Your task to perform on an android device: Open Android settings Image 0: 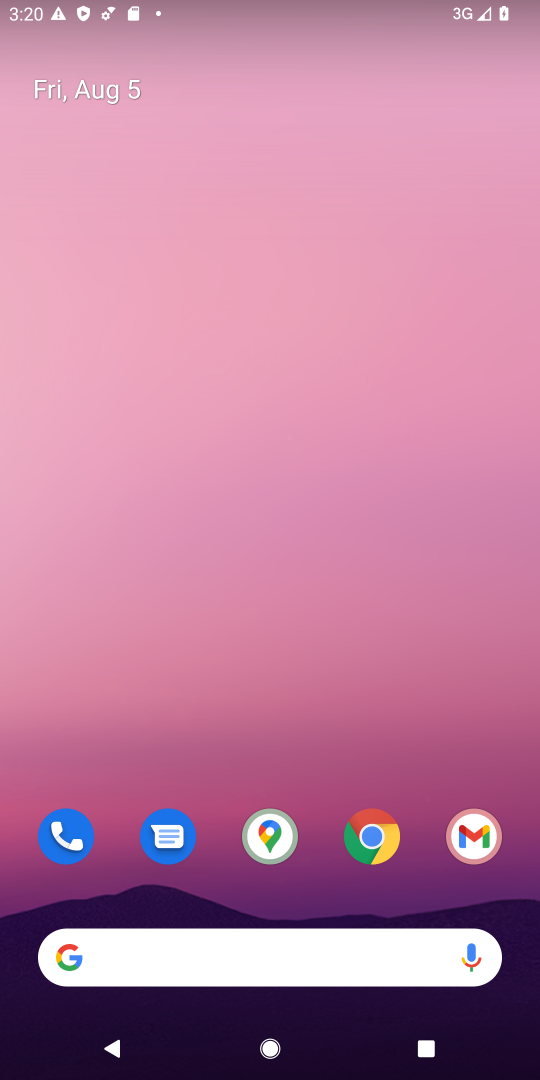
Step 0: drag from (308, 862) to (313, 240)
Your task to perform on an android device: Open Android settings Image 1: 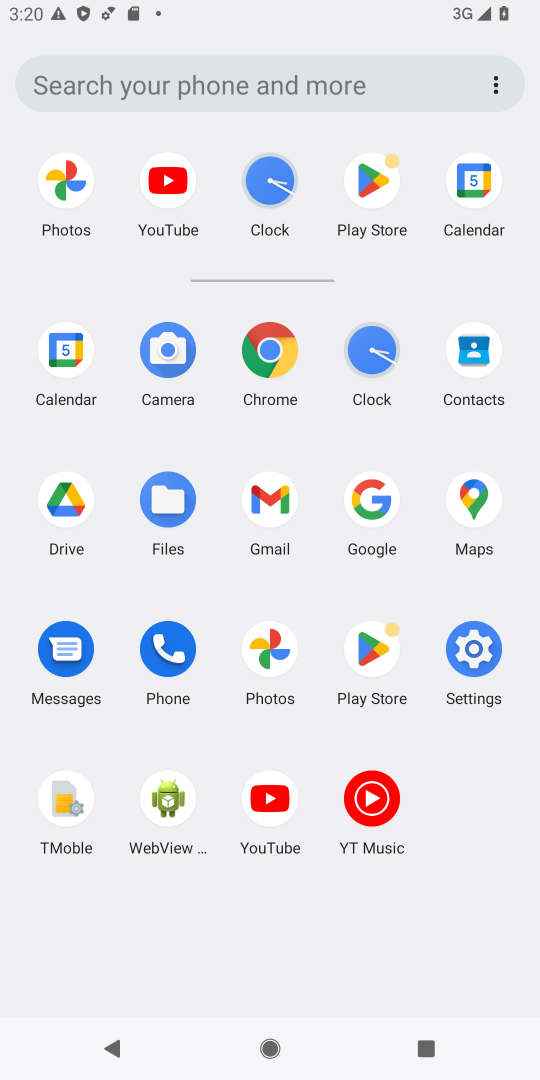
Step 1: click (472, 657)
Your task to perform on an android device: Open Android settings Image 2: 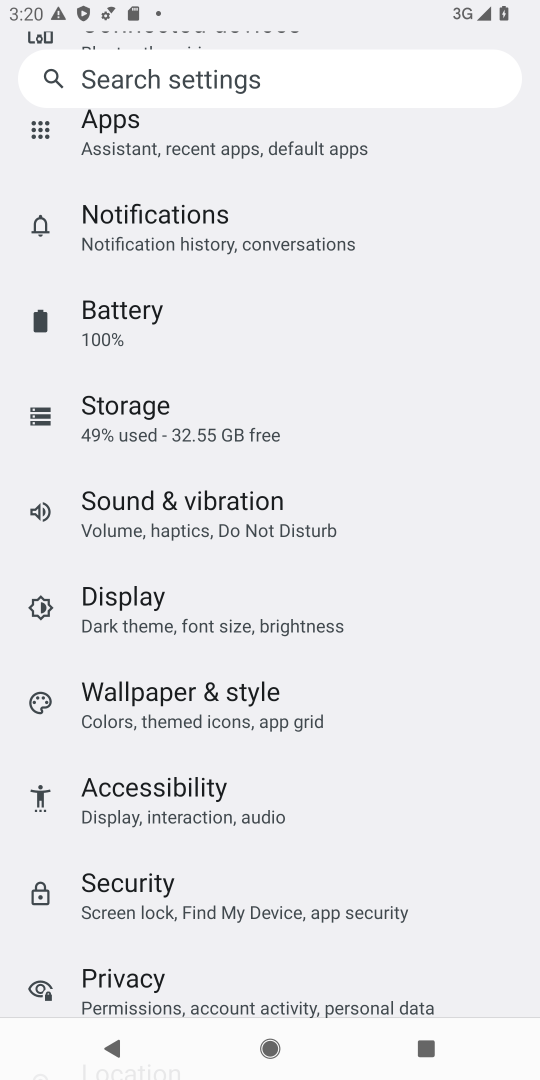
Step 2: task complete